Your task to perform on an android device: turn off location history Image 0: 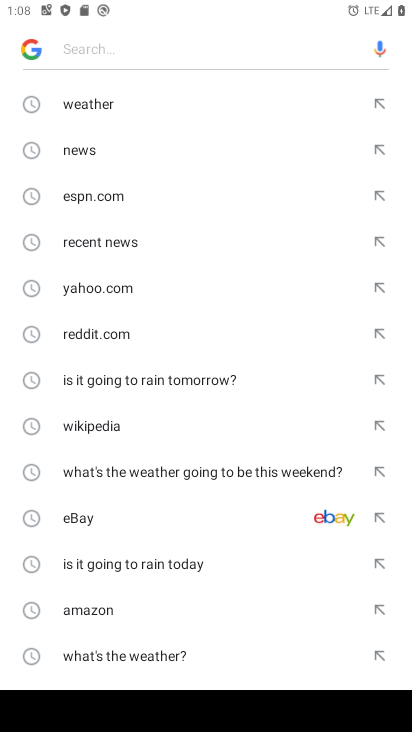
Step 0: press home button
Your task to perform on an android device: turn off location history Image 1: 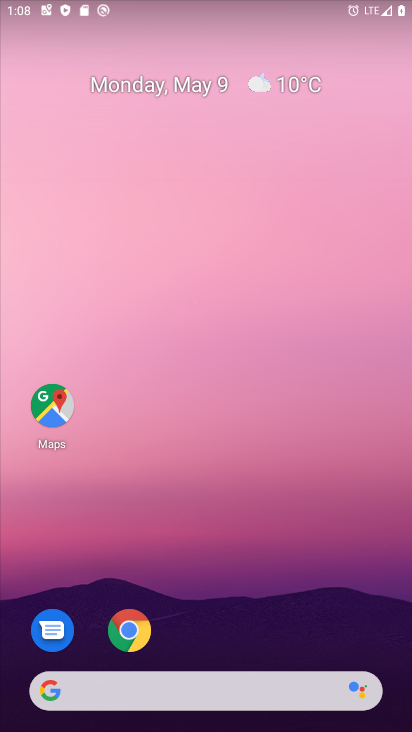
Step 1: drag from (315, 619) to (267, 69)
Your task to perform on an android device: turn off location history Image 2: 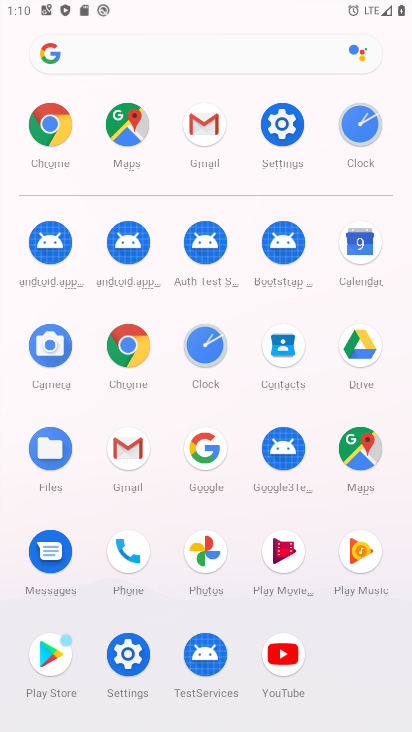
Step 2: click (134, 654)
Your task to perform on an android device: turn off location history Image 3: 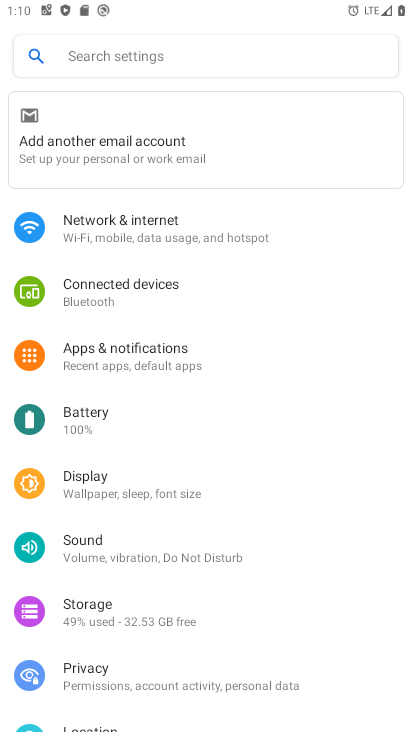
Step 3: click (113, 726)
Your task to perform on an android device: turn off location history Image 4: 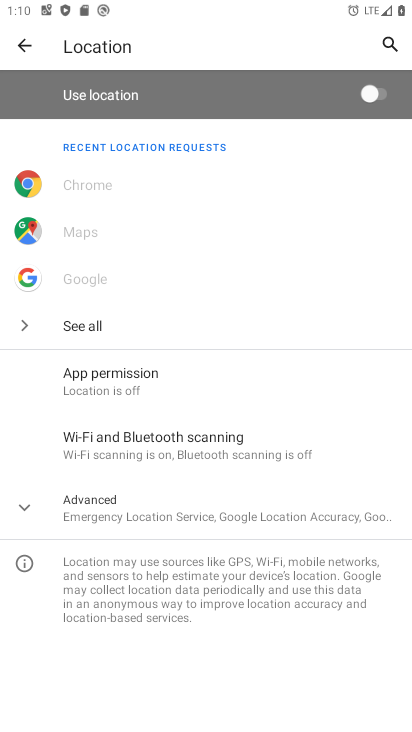
Step 4: click (160, 496)
Your task to perform on an android device: turn off location history Image 5: 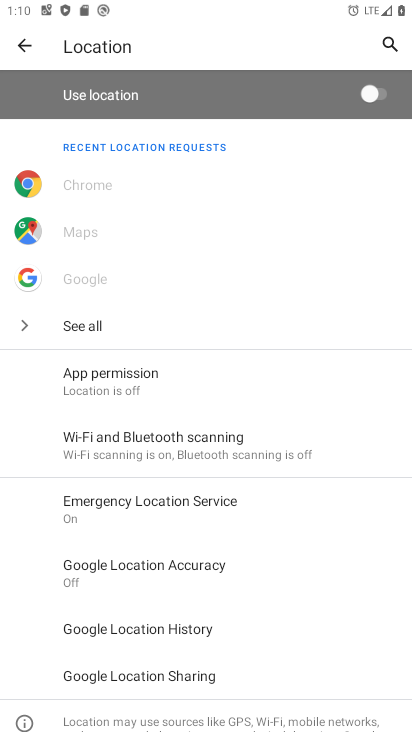
Step 5: click (169, 627)
Your task to perform on an android device: turn off location history Image 6: 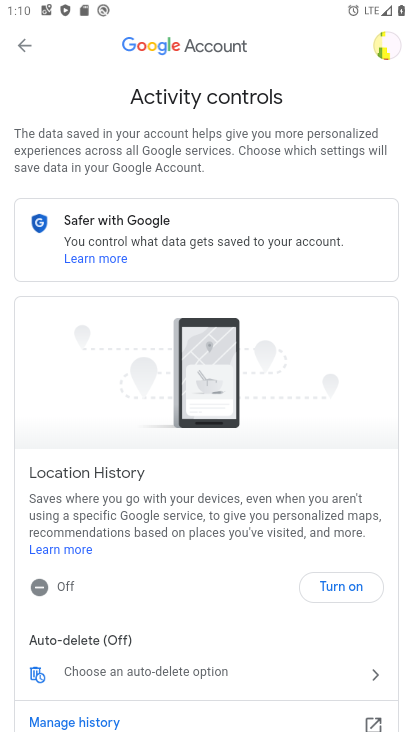
Step 6: click (330, 597)
Your task to perform on an android device: turn off location history Image 7: 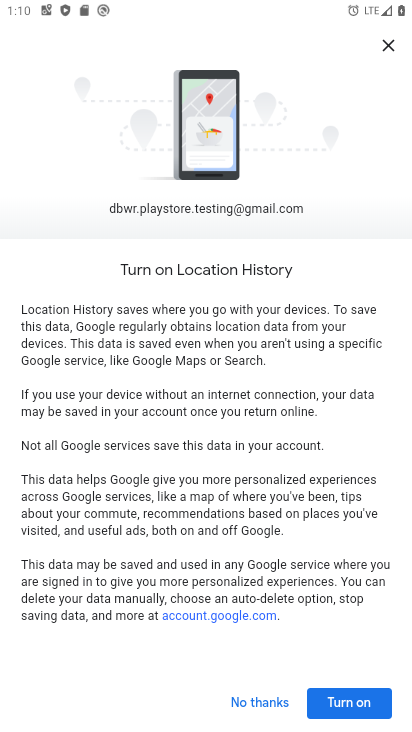
Step 7: task complete